Your task to perform on an android device: turn off javascript in the chrome app Image 0: 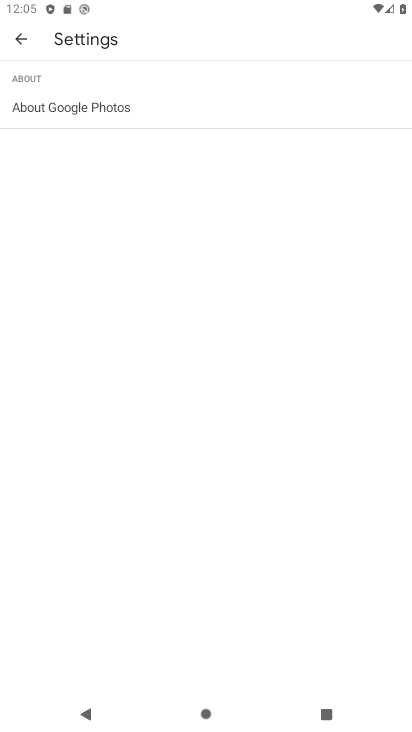
Step 0: click (15, 32)
Your task to perform on an android device: turn off javascript in the chrome app Image 1: 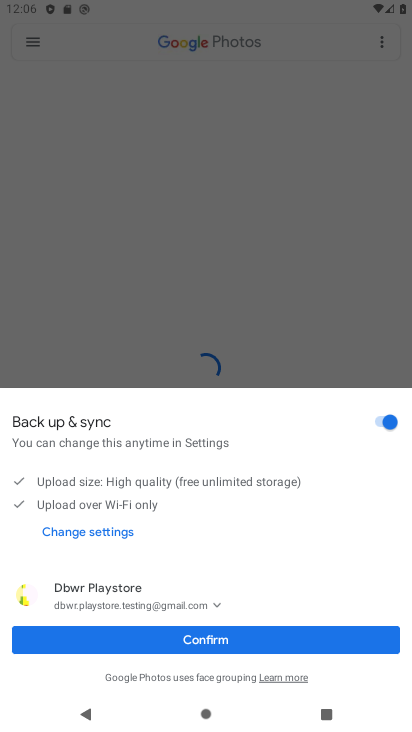
Step 1: click (138, 643)
Your task to perform on an android device: turn off javascript in the chrome app Image 2: 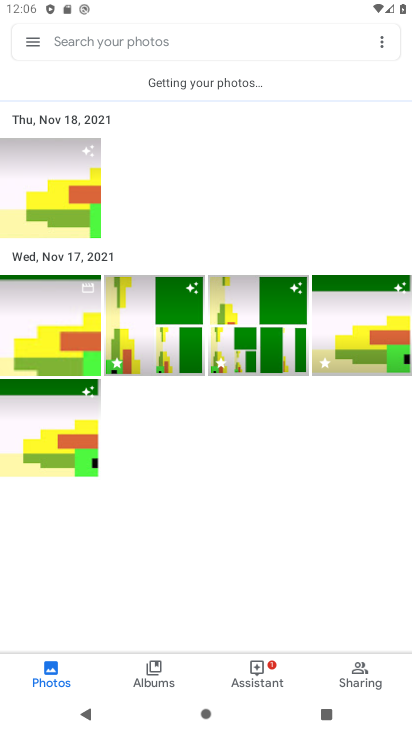
Step 2: press home button
Your task to perform on an android device: turn off javascript in the chrome app Image 3: 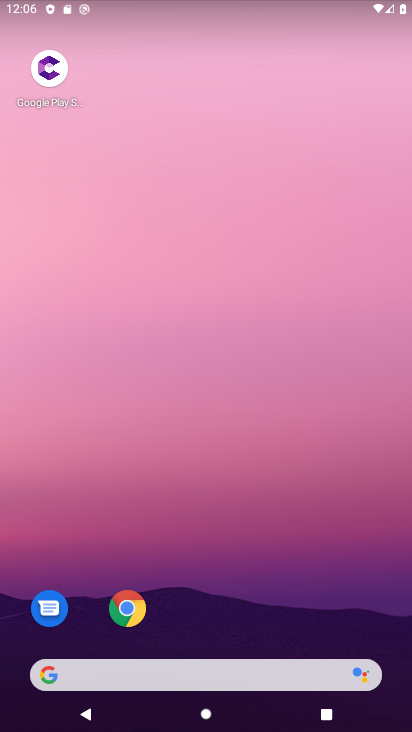
Step 3: click (120, 612)
Your task to perform on an android device: turn off javascript in the chrome app Image 4: 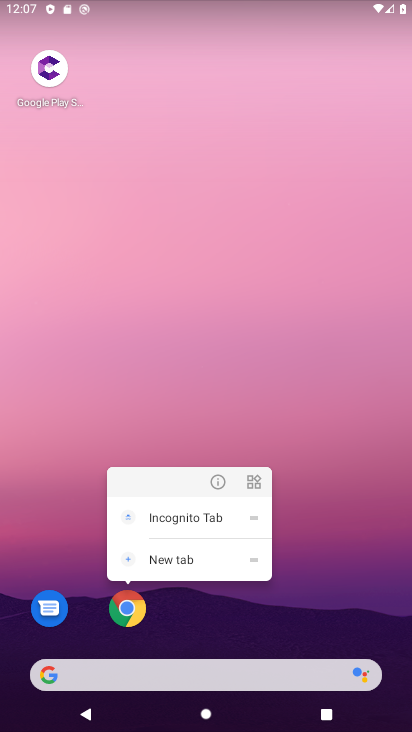
Step 4: click (119, 612)
Your task to perform on an android device: turn off javascript in the chrome app Image 5: 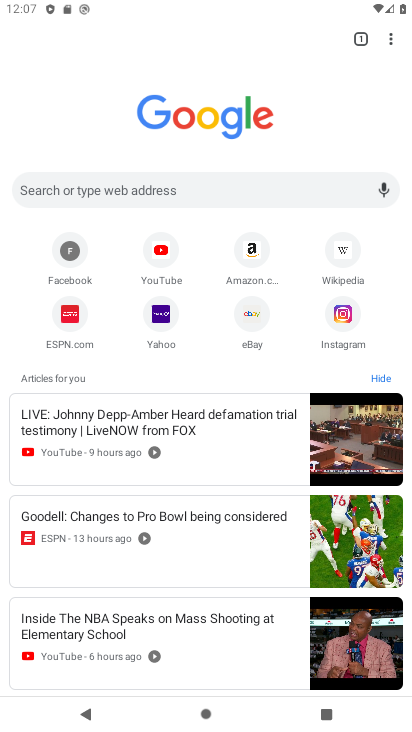
Step 5: click (391, 43)
Your task to perform on an android device: turn off javascript in the chrome app Image 6: 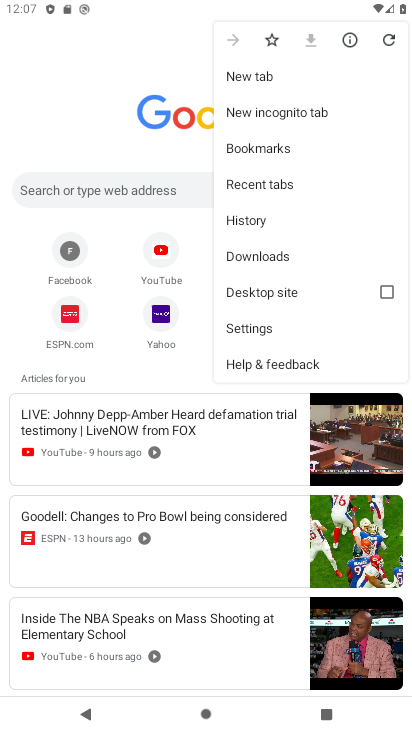
Step 6: click (300, 335)
Your task to perform on an android device: turn off javascript in the chrome app Image 7: 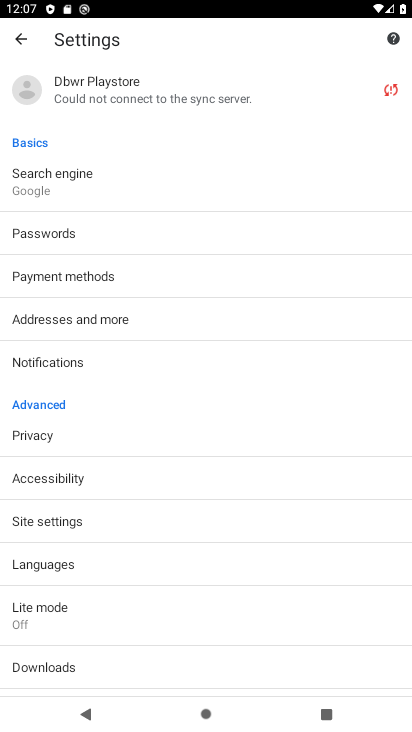
Step 7: click (87, 528)
Your task to perform on an android device: turn off javascript in the chrome app Image 8: 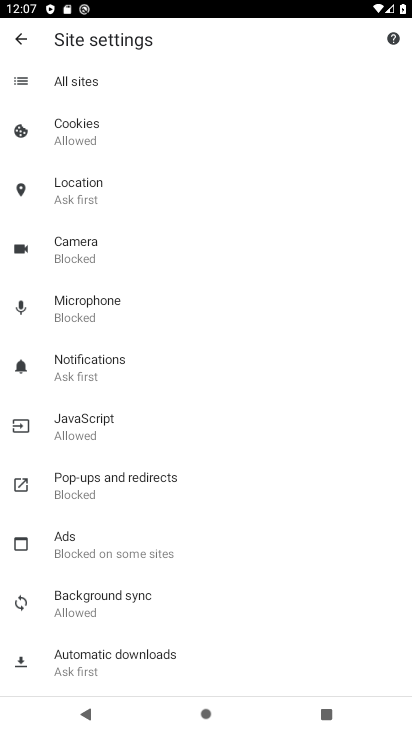
Step 8: click (84, 431)
Your task to perform on an android device: turn off javascript in the chrome app Image 9: 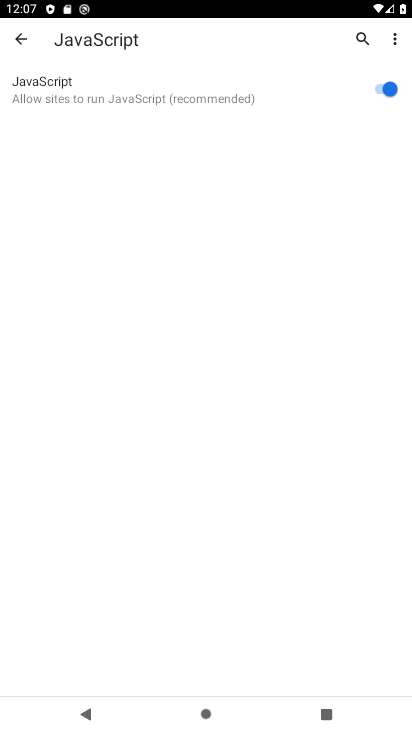
Step 9: click (382, 89)
Your task to perform on an android device: turn off javascript in the chrome app Image 10: 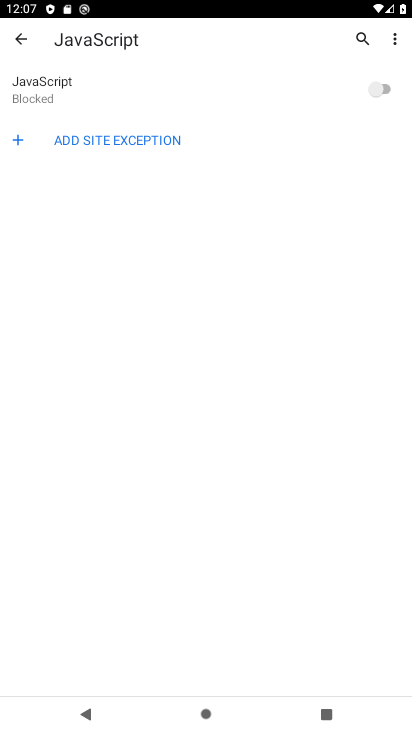
Step 10: task complete